Your task to perform on an android device: change text size in settings app Image 0: 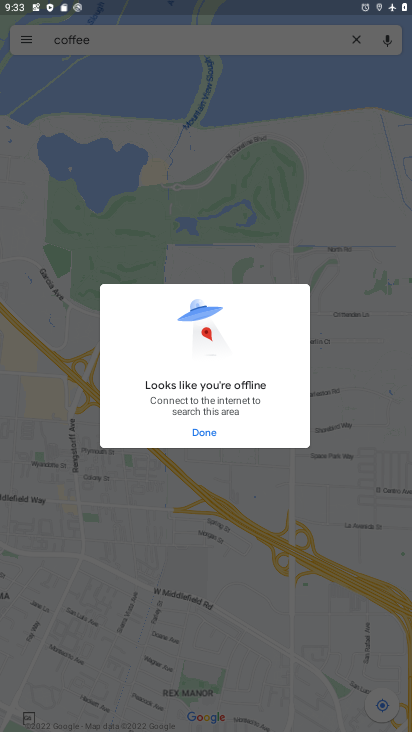
Step 0: press home button
Your task to perform on an android device: change text size in settings app Image 1: 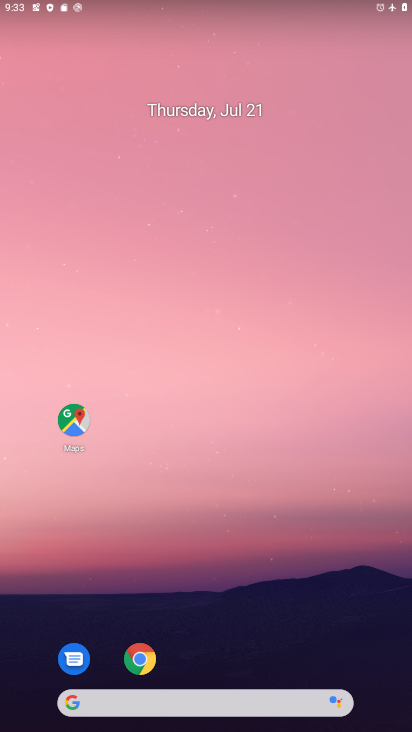
Step 1: drag from (203, 664) to (134, 14)
Your task to perform on an android device: change text size in settings app Image 2: 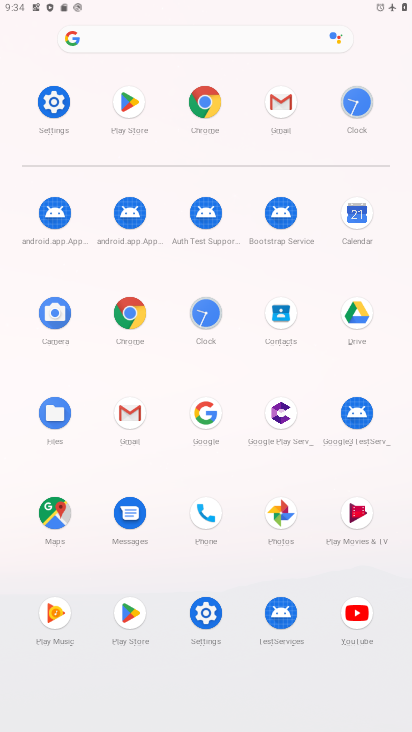
Step 2: click (220, 615)
Your task to perform on an android device: change text size in settings app Image 3: 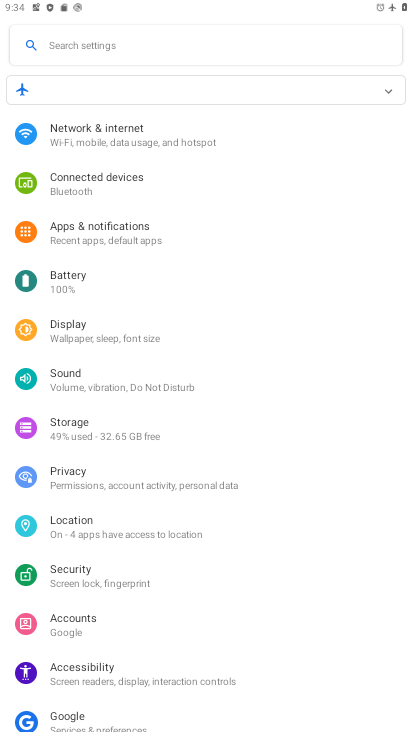
Step 3: click (80, 336)
Your task to perform on an android device: change text size in settings app Image 4: 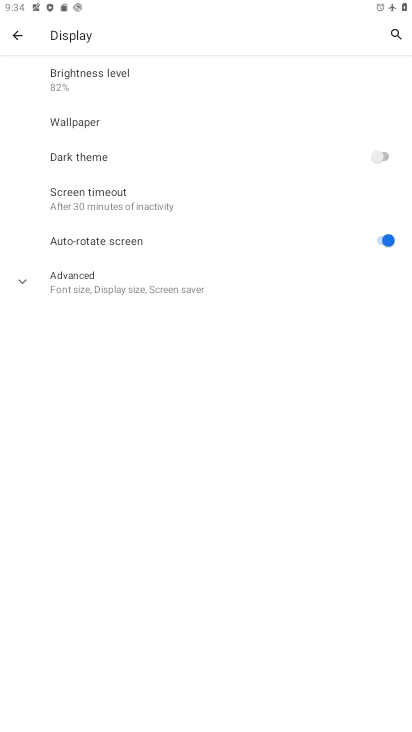
Step 4: click (86, 286)
Your task to perform on an android device: change text size in settings app Image 5: 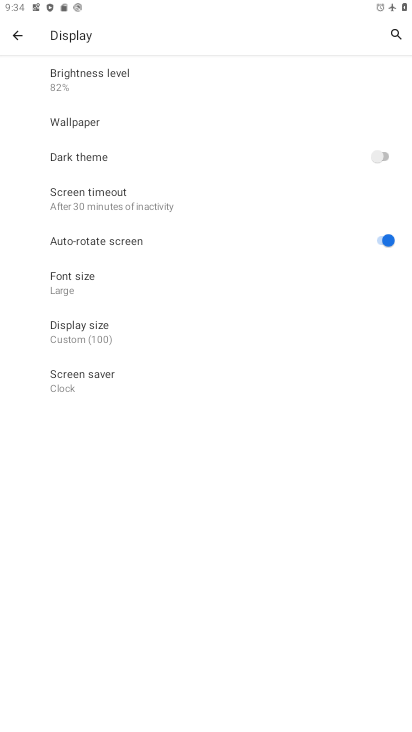
Step 5: click (86, 285)
Your task to perform on an android device: change text size in settings app Image 6: 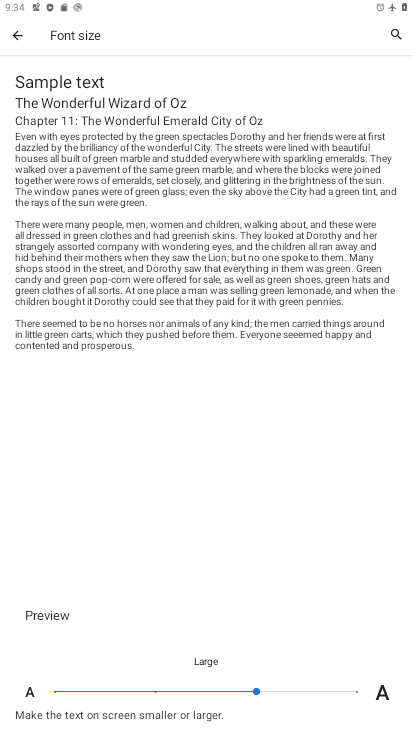
Step 6: click (154, 685)
Your task to perform on an android device: change text size in settings app Image 7: 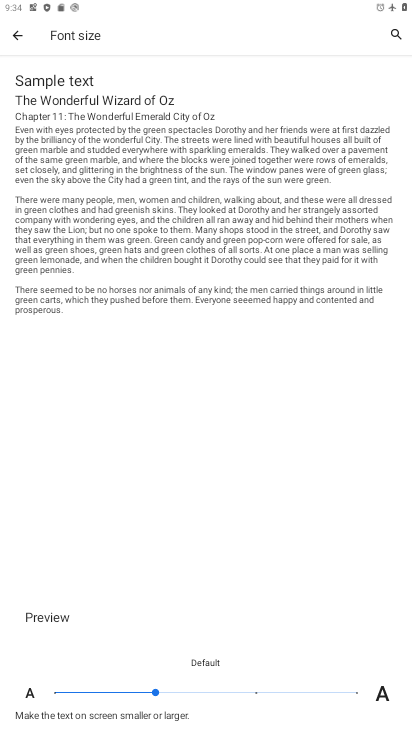
Step 7: click (354, 688)
Your task to perform on an android device: change text size in settings app Image 8: 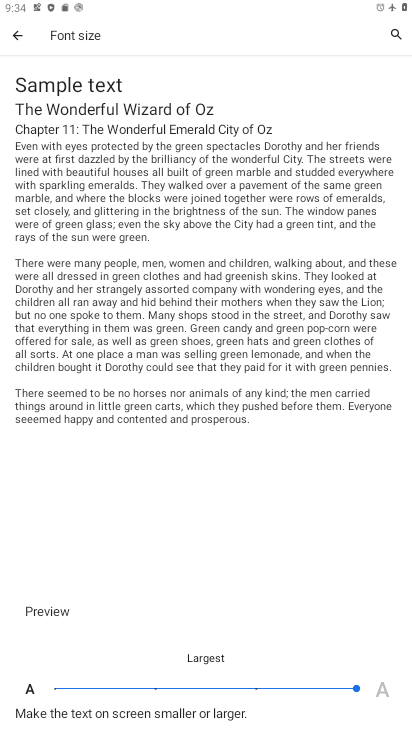
Step 8: task complete